Your task to perform on an android device: turn on data saver in the chrome app Image 0: 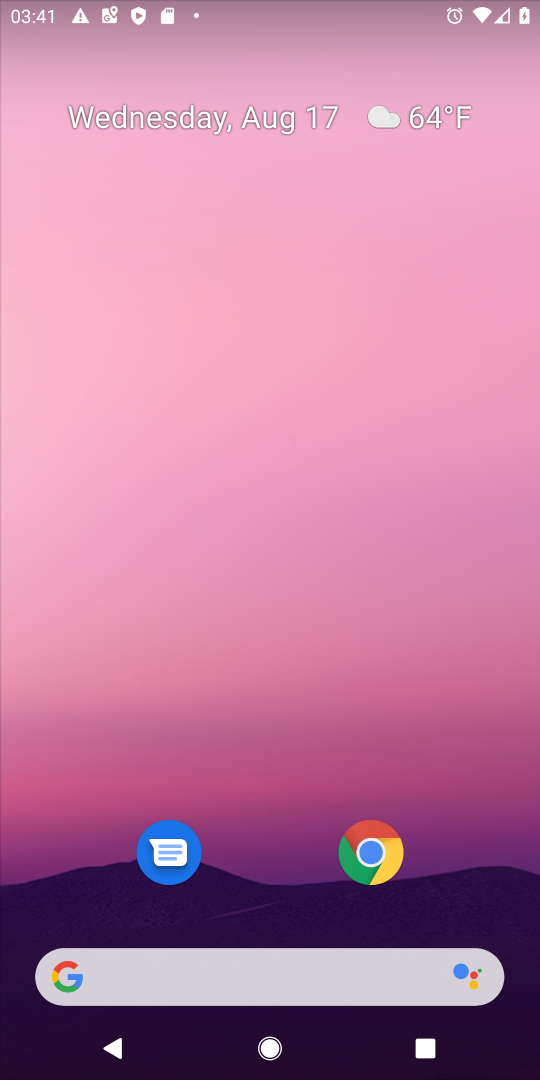
Step 0: drag from (255, 783) to (325, 106)
Your task to perform on an android device: turn on data saver in the chrome app Image 1: 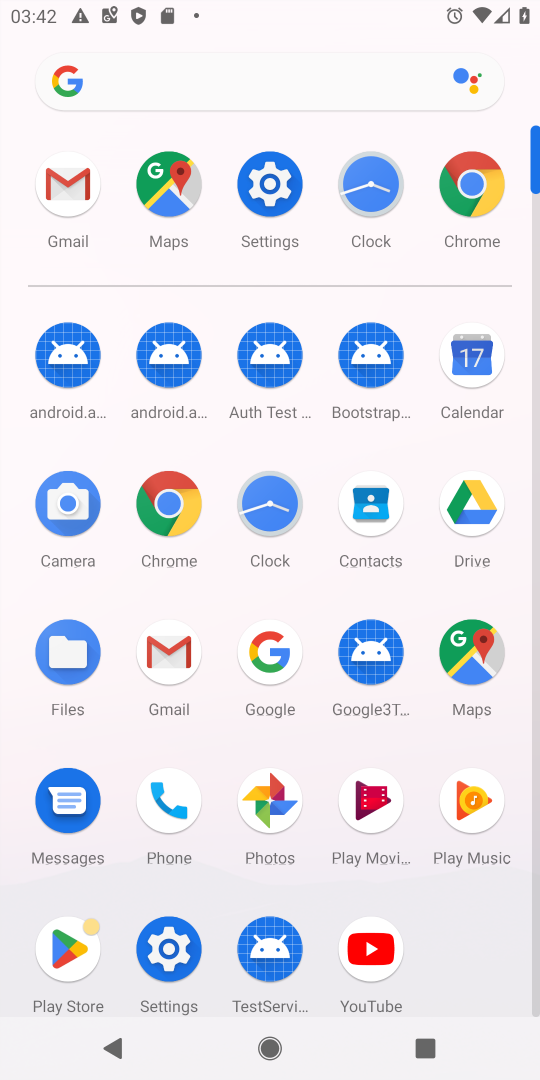
Step 1: click (165, 504)
Your task to perform on an android device: turn on data saver in the chrome app Image 2: 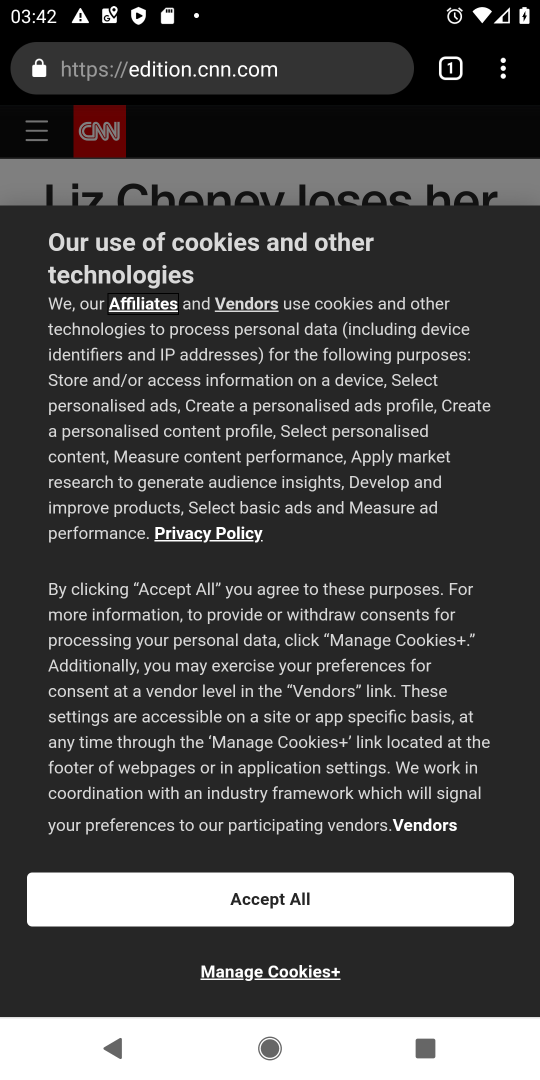
Step 2: drag from (504, 72) to (286, 770)
Your task to perform on an android device: turn on data saver in the chrome app Image 3: 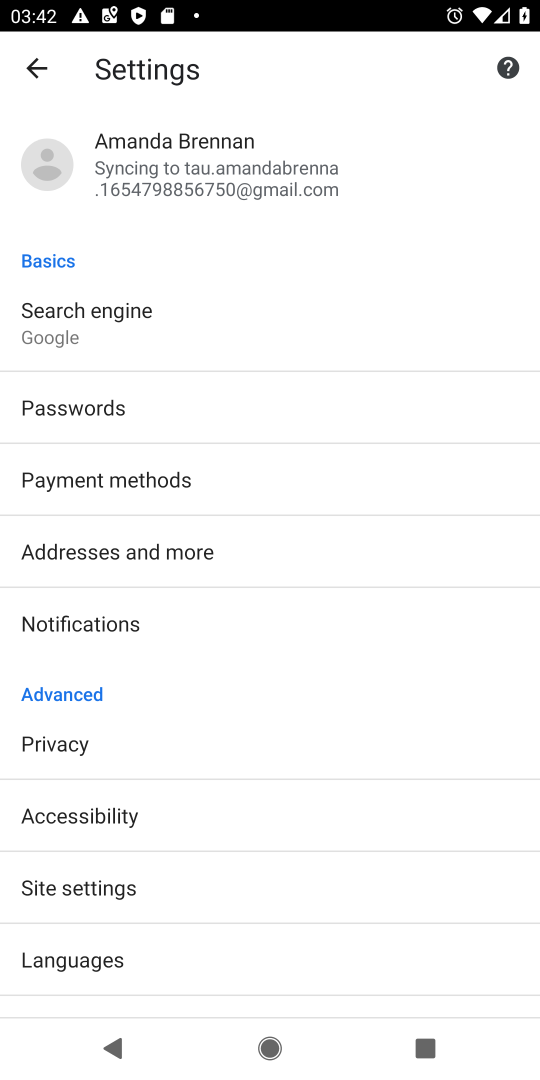
Step 3: drag from (299, 977) to (374, 113)
Your task to perform on an android device: turn on data saver in the chrome app Image 4: 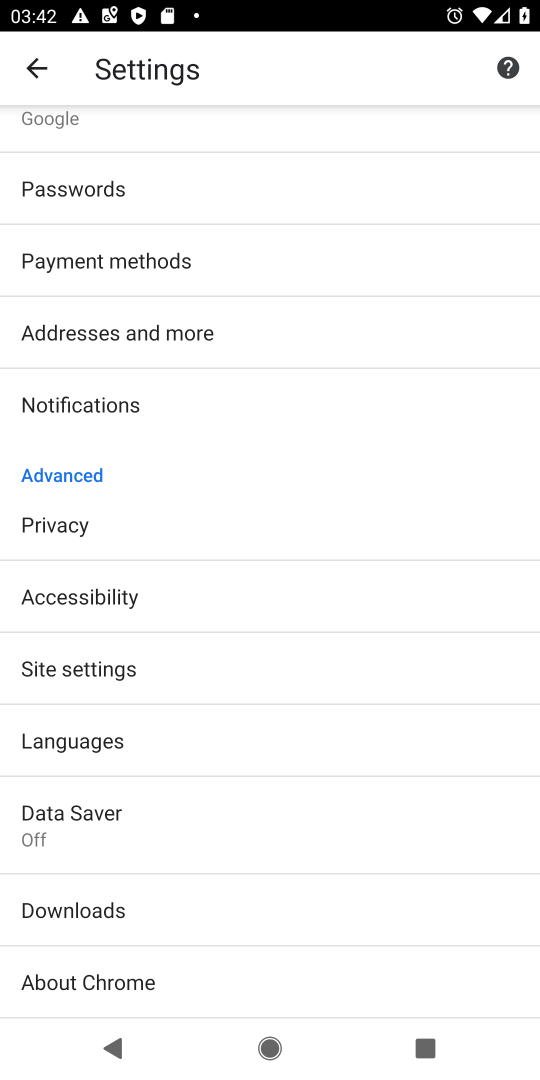
Step 4: click (110, 823)
Your task to perform on an android device: turn on data saver in the chrome app Image 5: 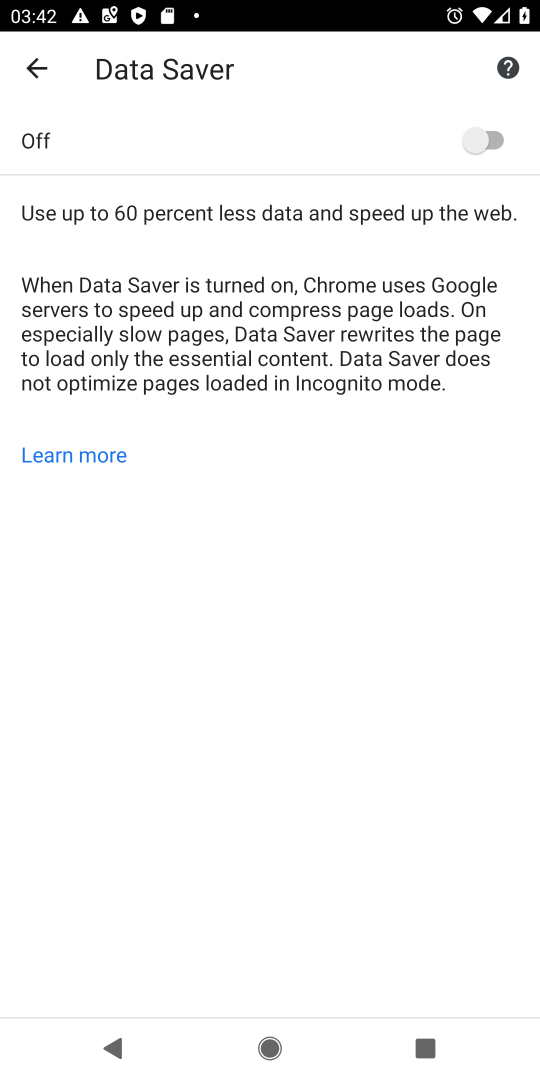
Step 5: click (500, 142)
Your task to perform on an android device: turn on data saver in the chrome app Image 6: 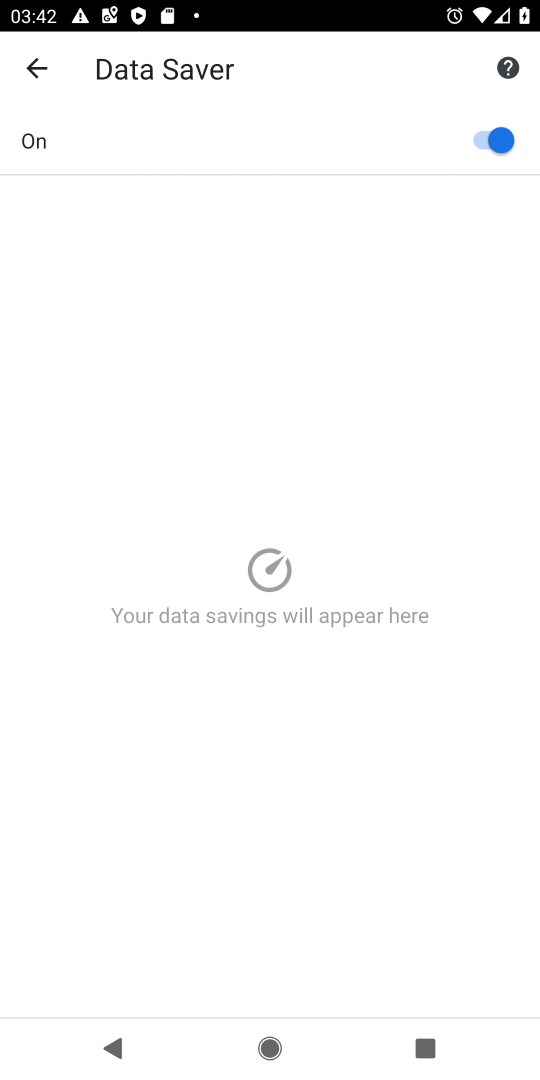
Step 6: task complete